Your task to perform on an android device: Open the calendar and show me this week's events Image 0: 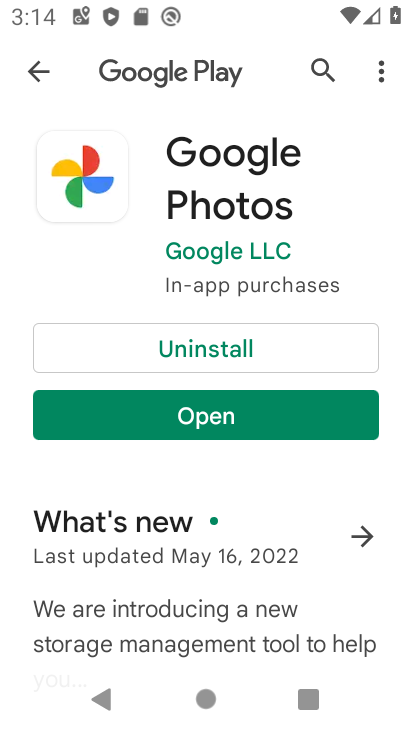
Step 0: press home button
Your task to perform on an android device: Open the calendar and show me this week's events Image 1: 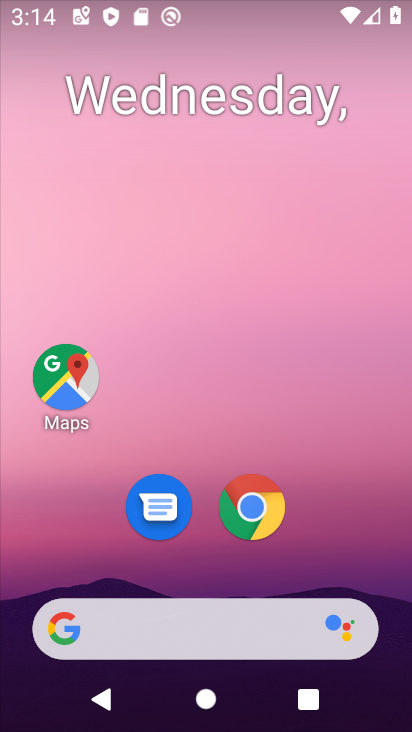
Step 1: drag from (308, 521) to (346, 289)
Your task to perform on an android device: Open the calendar and show me this week's events Image 2: 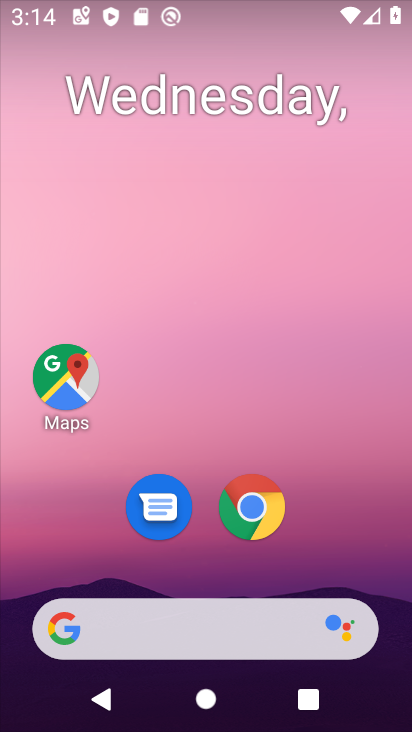
Step 2: drag from (316, 551) to (367, 149)
Your task to perform on an android device: Open the calendar and show me this week's events Image 3: 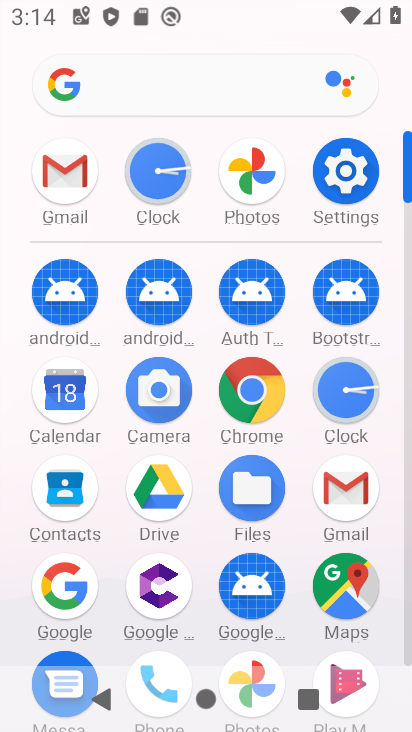
Step 3: click (73, 394)
Your task to perform on an android device: Open the calendar and show me this week's events Image 4: 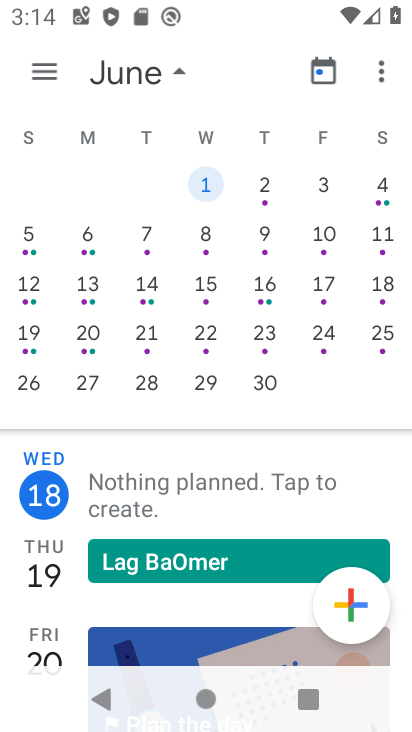
Step 4: click (55, 52)
Your task to perform on an android device: Open the calendar and show me this week's events Image 5: 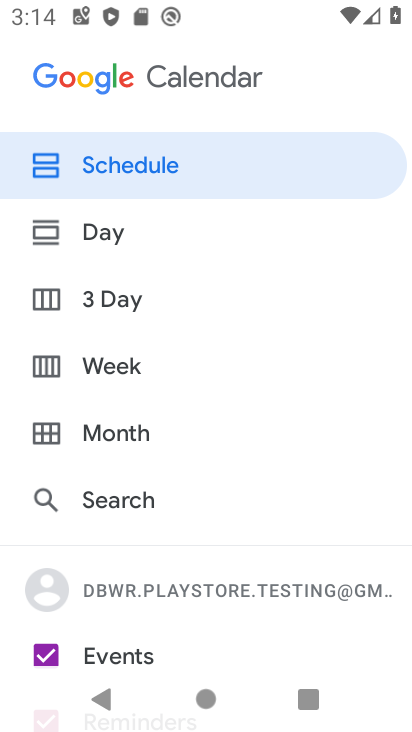
Step 5: click (151, 364)
Your task to perform on an android device: Open the calendar and show me this week's events Image 6: 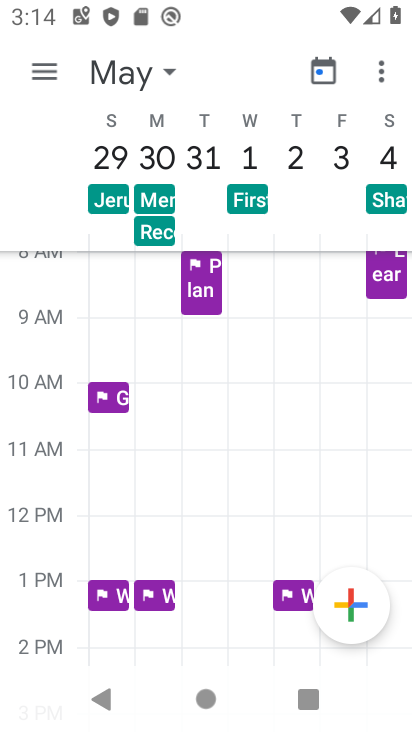
Step 6: task complete